Your task to perform on an android device: Add macbook pro 13 inch to the cart on ebay.com, then select checkout. Image 0: 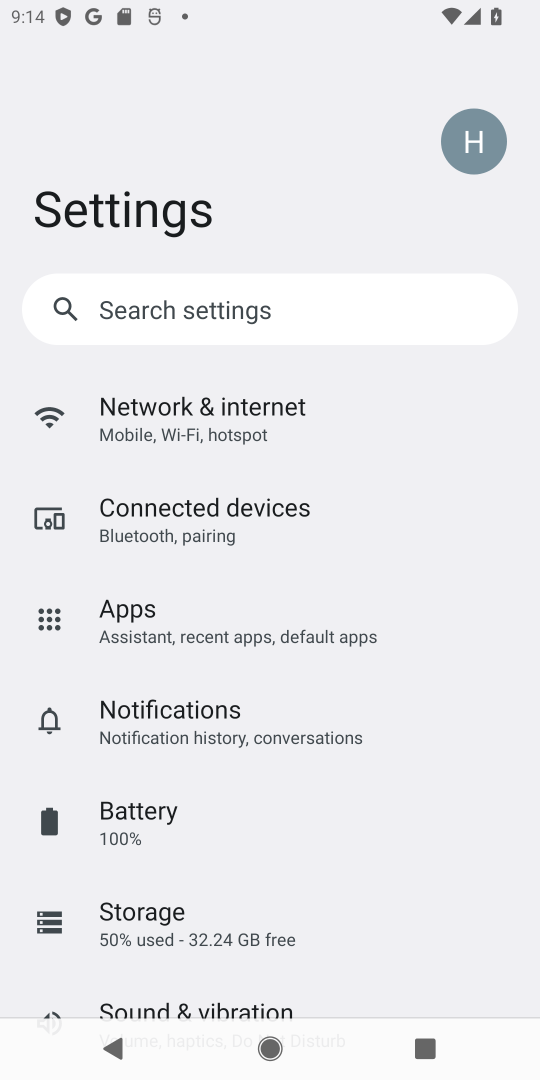
Step 0: press home button
Your task to perform on an android device: Add macbook pro 13 inch to the cart on ebay.com, then select checkout. Image 1: 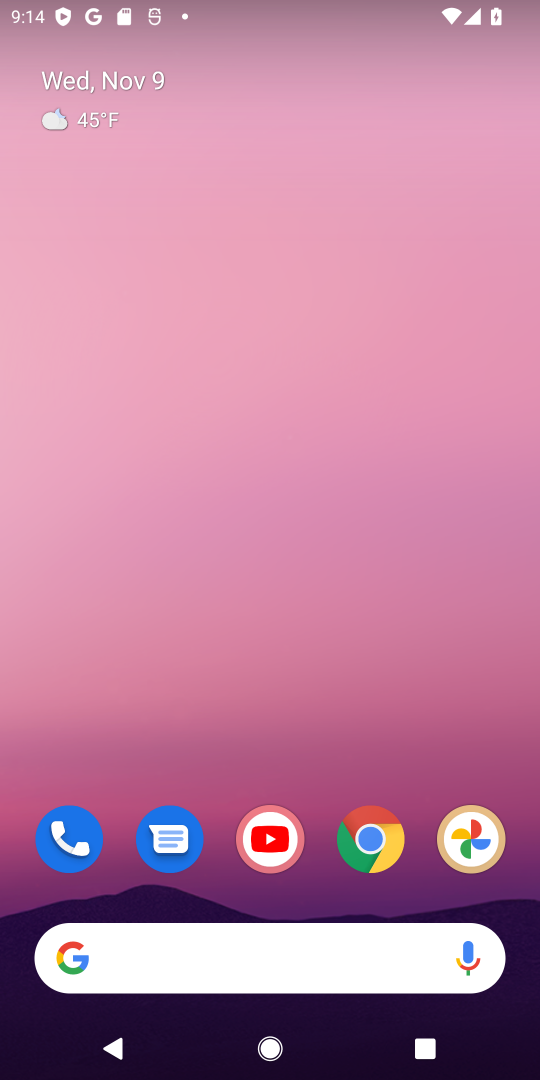
Step 1: drag from (207, 750) to (332, 69)
Your task to perform on an android device: Add macbook pro 13 inch to the cart on ebay.com, then select checkout. Image 2: 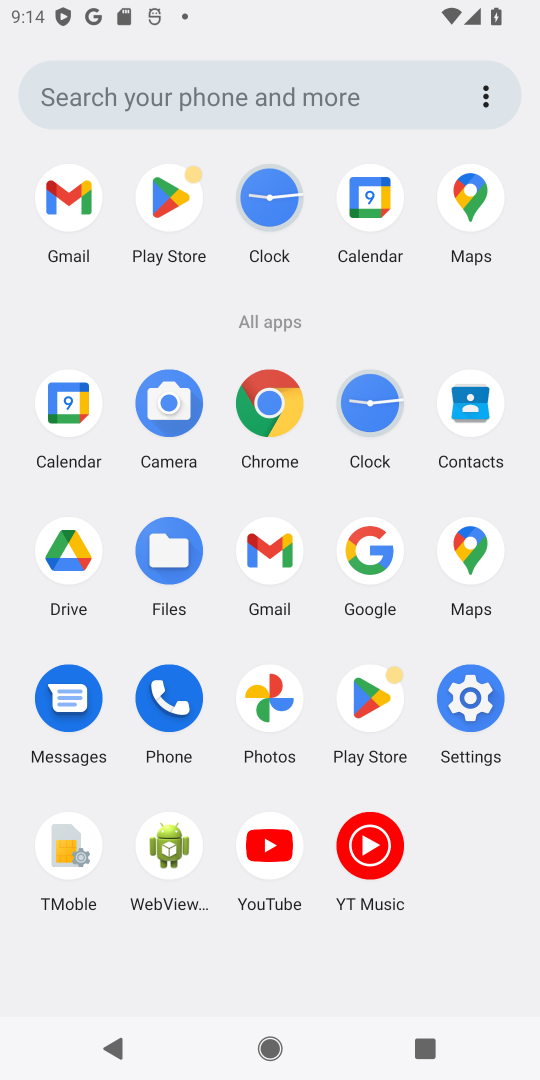
Step 2: click (290, 411)
Your task to perform on an android device: Add macbook pro 13 inch to the cart on ebay.com, then select checkout. Image 3: 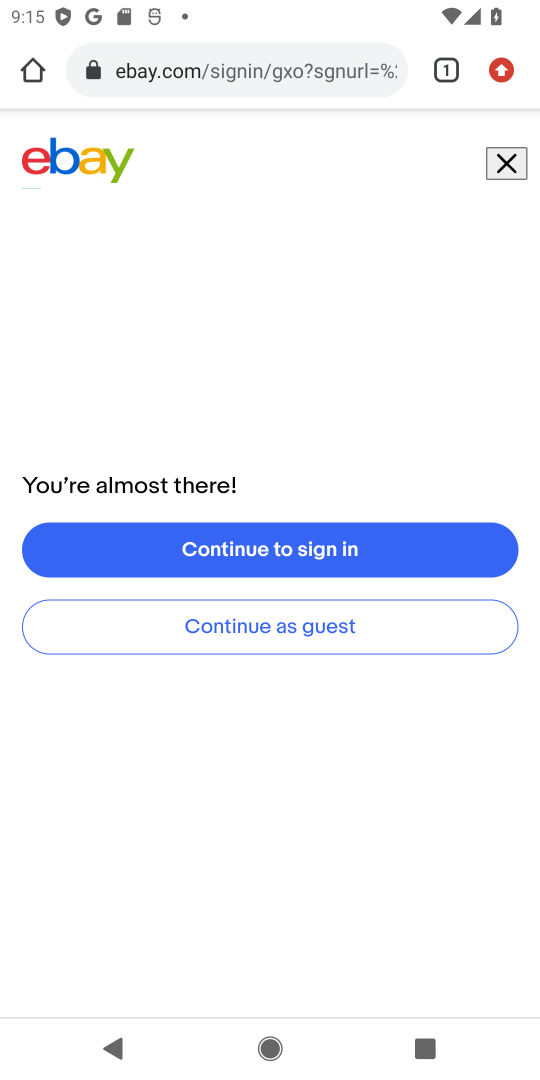
Step 3: click (502, 156)
Your task to perform on an android device: Add macbook pro 13 inch to the cart on ebay.com, then select checkout. Image 4: 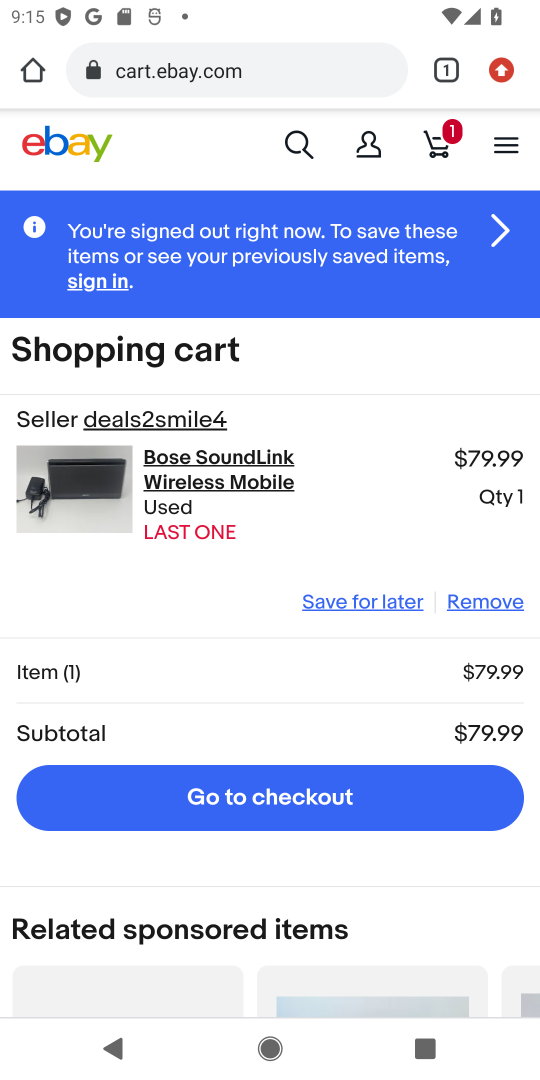
Step 4: click (302, 132)
Your task to perform on an android device: Add macbook pro 13 inch to the cart on ebay.com, then select checkout. Image 5: 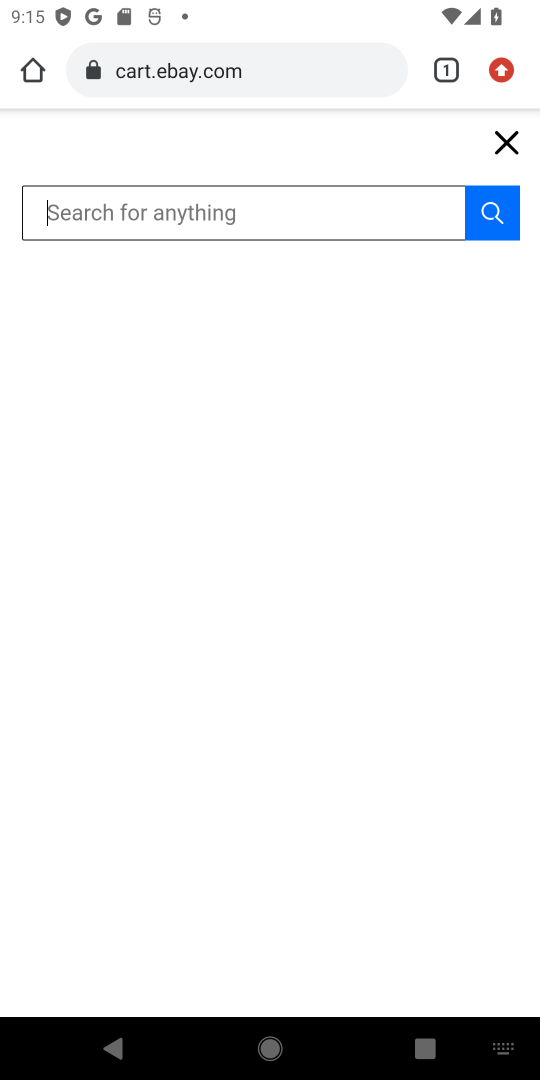
Step 5: type "macbook pro 13 inch "
Your task to perform on an android device: Add macbook pro 13 inch to the cart on ebay.com, then select checkout. Image 6: 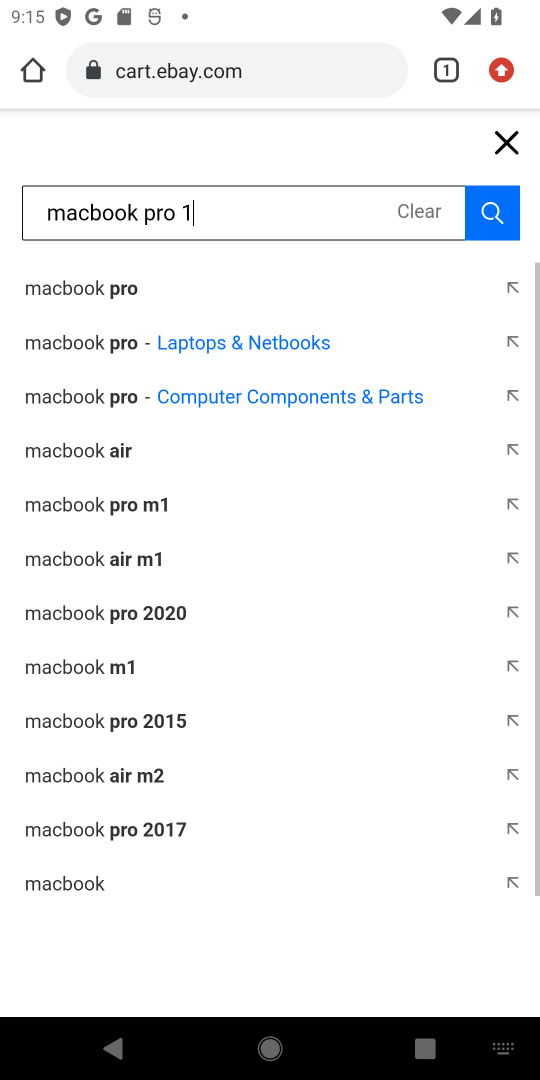
Step 6: press enter
Your task to perform on an android device: Add macbook pro 13 inch to the cart on ebay.com, then select checkout. Image 7: 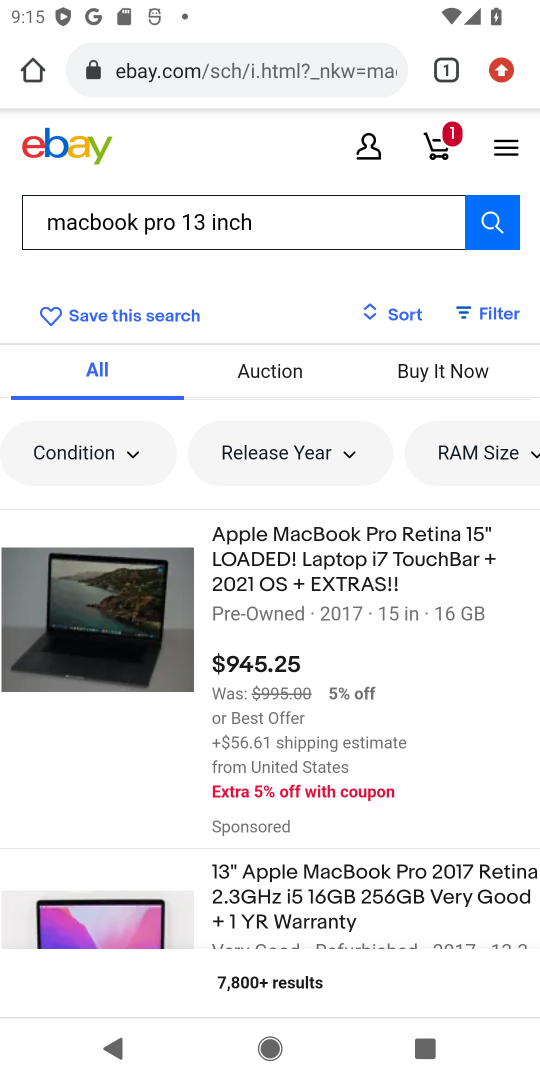
Step 7: click (237, 531)
Your task to perform on an android device: Add macbook pro 13 inch to the cart on ebay.com, then select checkout. Image 8: 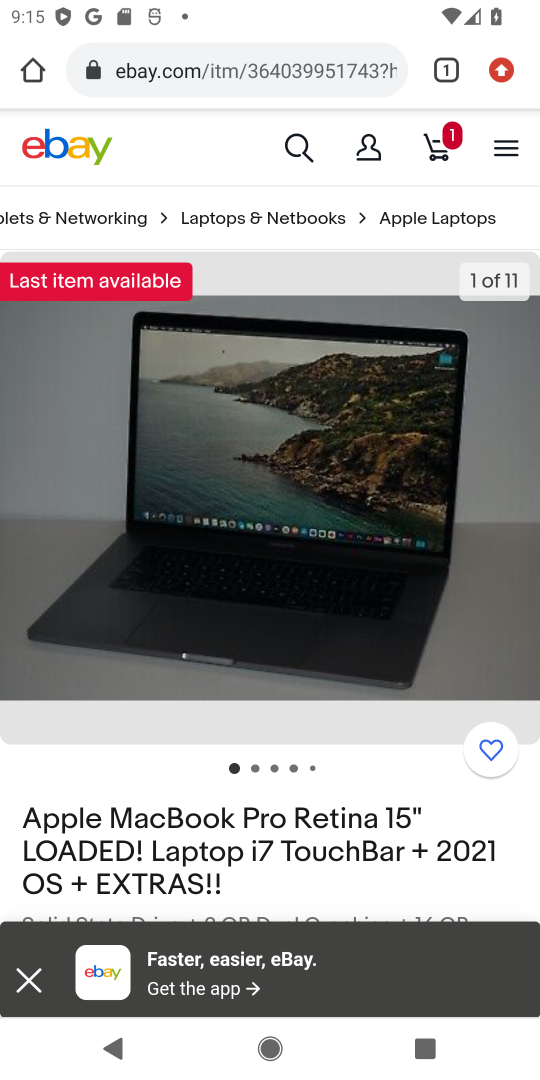
Step 8: drag from (291, 826) to (345, 489)
Your task to perform on an android device: Add macbook pro 13 inch to the cart on ebay.com, then select checkout. Image 9: 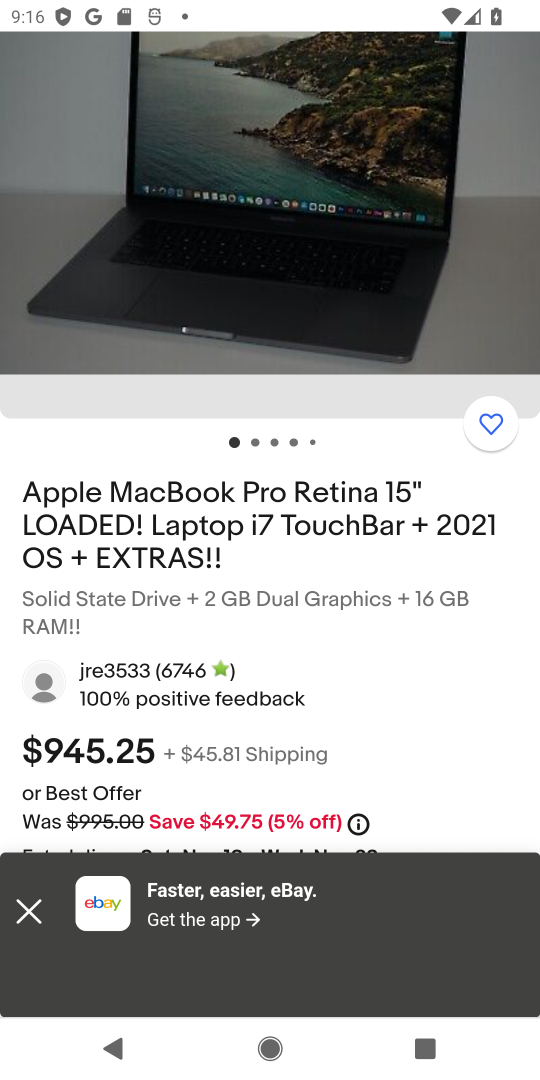
Step 9: drag from (314, 747) to (328, 461)
Your task to perform on an android device: Add macbook pro 13 inch to the cart on ebay.com, then select checkout. Image 10: 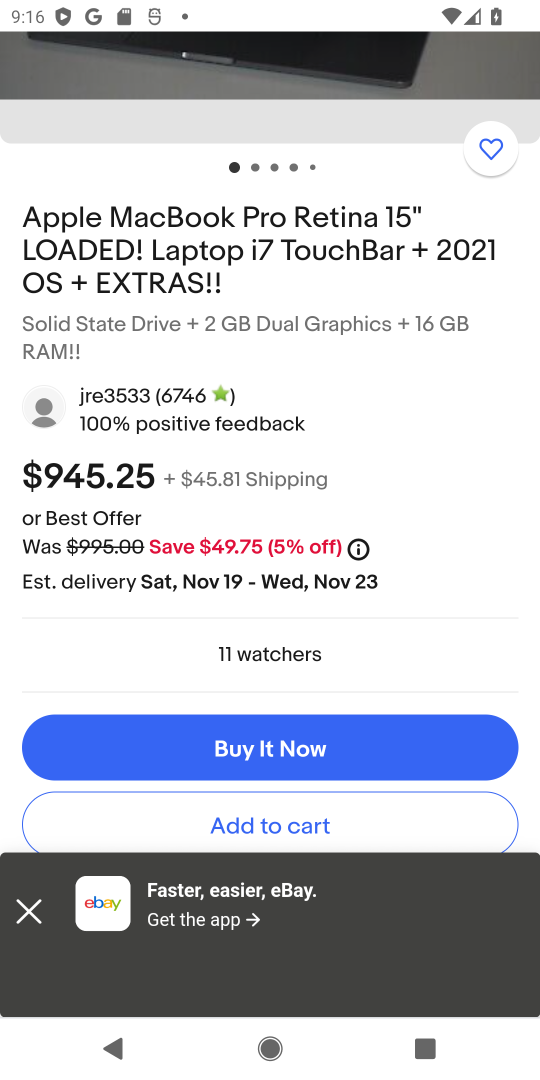
Step 10: drag from (315, 617) to (329, 497)
Your task to perform on an android device: Add macbook pro 13 inch to the cart on ebay.com, then select checkout. Image 11: 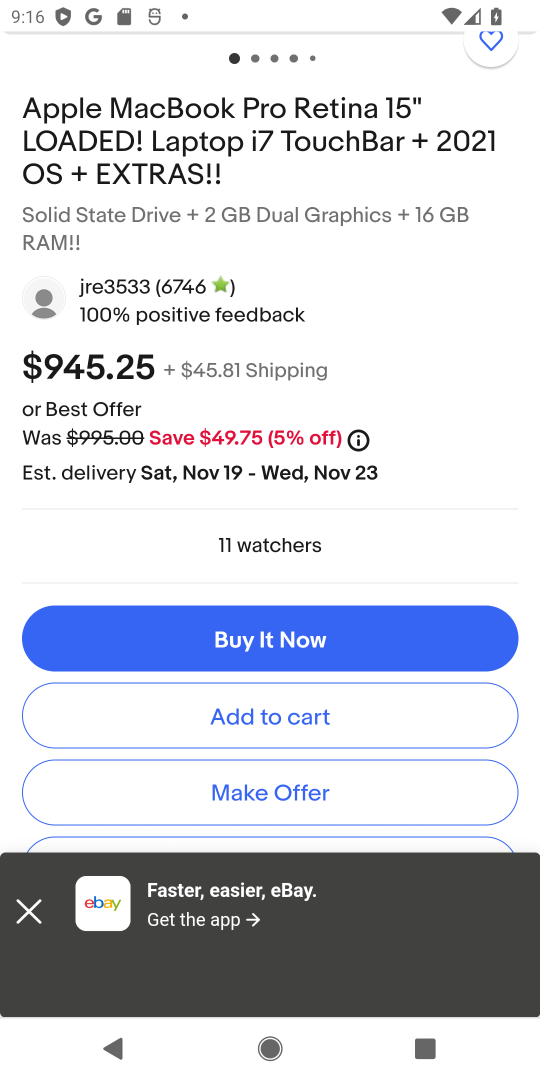
Step 11: click (237, 725)
Your task to perform on an android device: Add macbook pro 13 inch to the cart on ebay.com, then select checkout. Image 12: 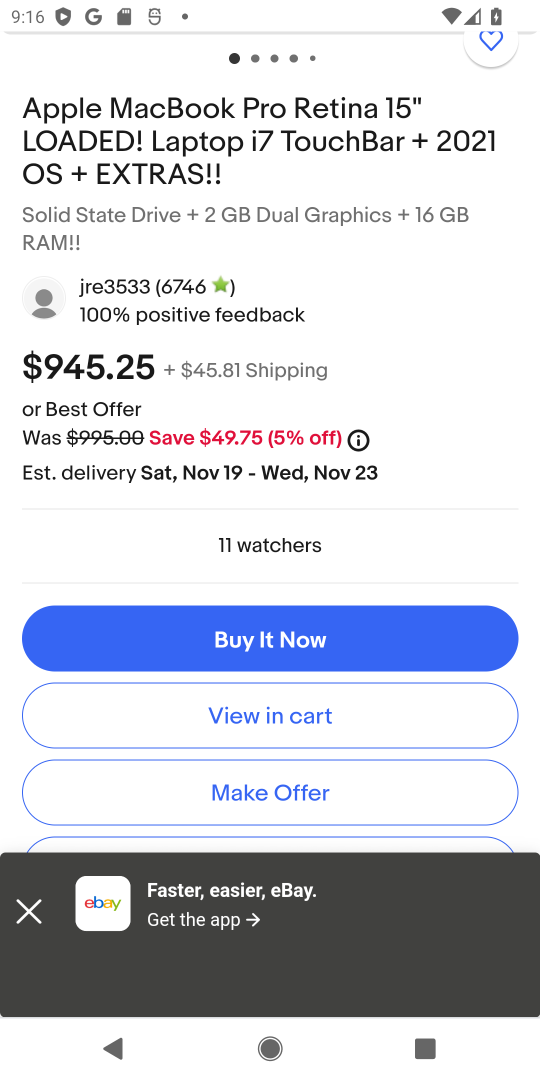
Step 12: click (237, 716)
Your task to perform on an android device: Add macbook pro 13 inch to the cart on ebay.com, then select checkout. Image 13: 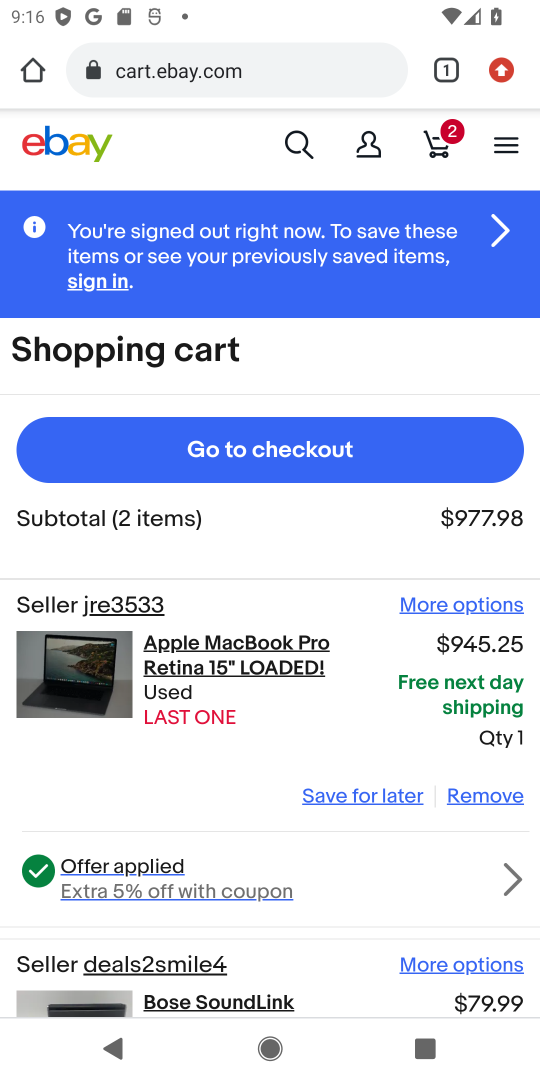
Step 13: click (275, 450)
Your task to perform on an android device: Add macbook pro 13 inch to the cart on ebay.com, then select checkout. Image 14: 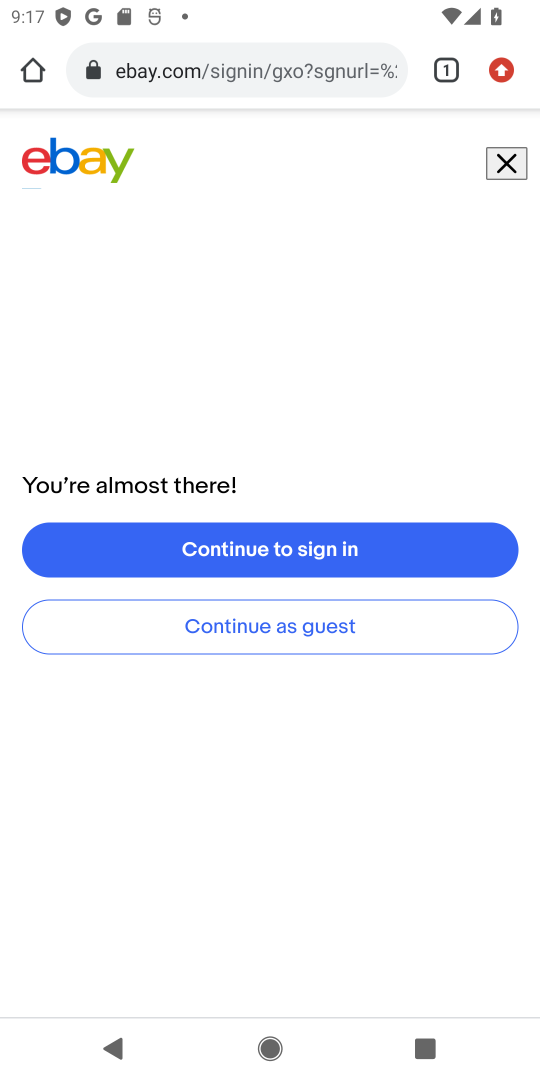
Step 14: task complete